Your task to perform on an android device: Open Reddit.com Image 0: 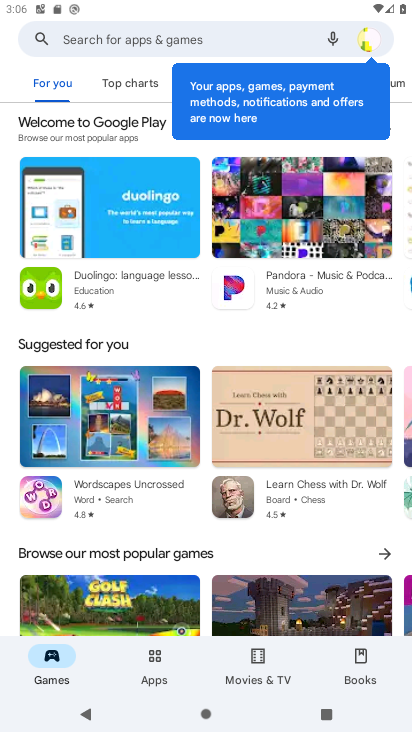
Step 0: press home button
Your task to perform on an android device: Open Reddit.com Image 1: 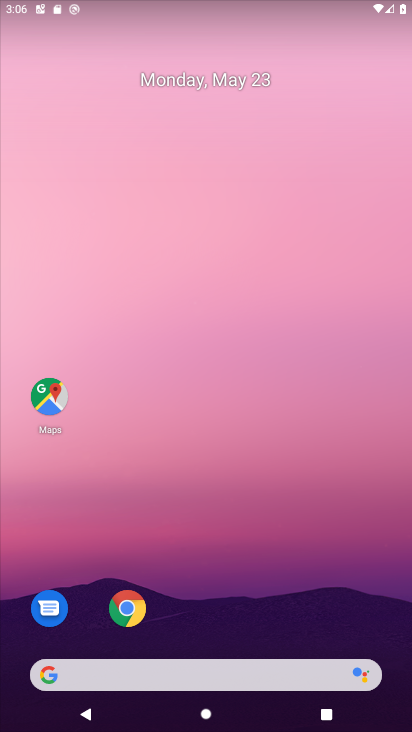
Step 1: click (123, 617)
Your task to perform on an android device: Open Reddit.com Image 2: 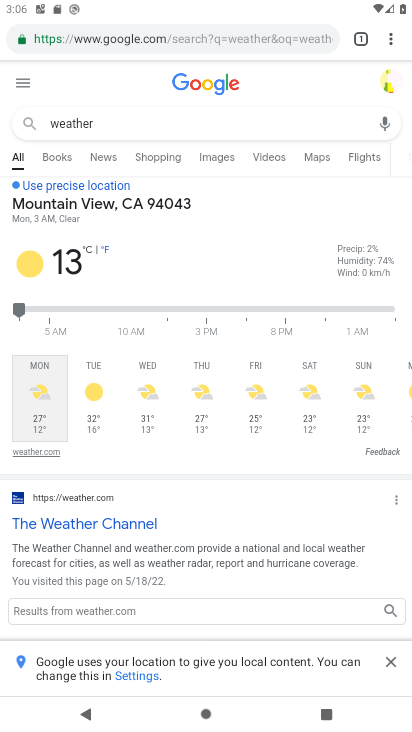
Step 2: click (180, 31)
Your task to perform on an android device: Open Reddit.com Image 3: 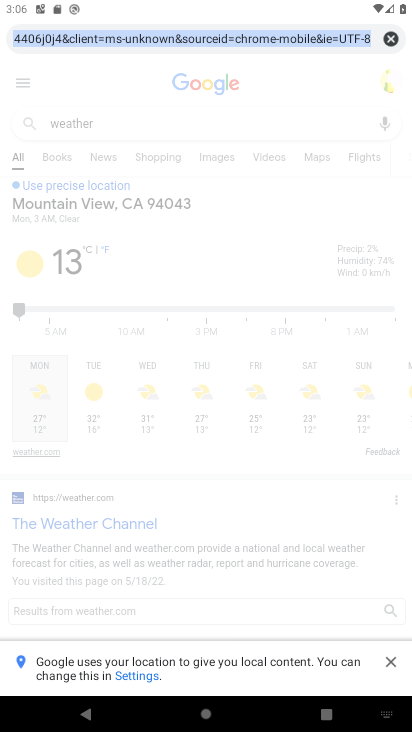
Step 3: type "Reddit.com"
Your task to perform on an android device: Open Reddit.com Image 4: 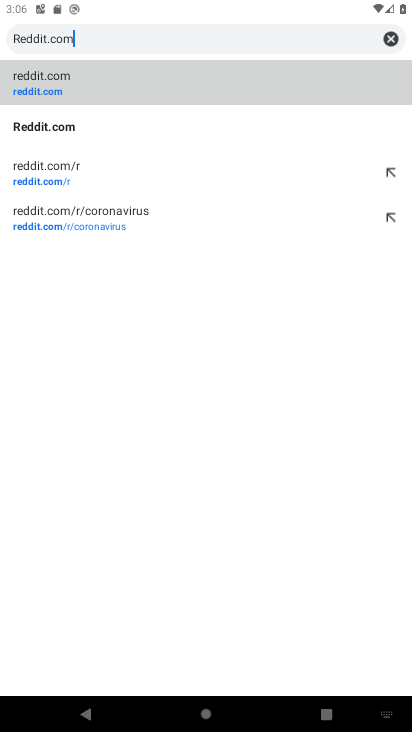
Step 4: click (31, 88)
Your task to perform on an android device: Open Reddit.com Image 5: 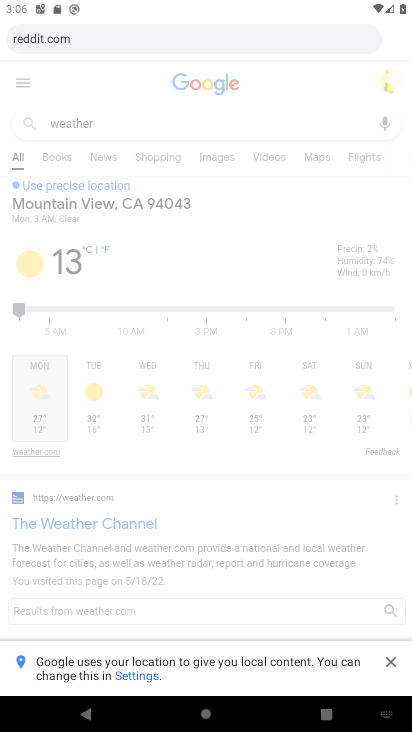
Step 5: click (32, 99)
Your task to perform on an android device: Open Reddit.com Image 6: 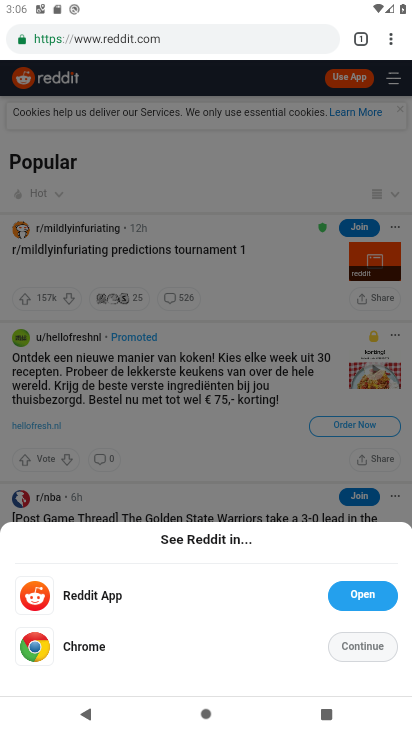
Step 6: click (359, 653)
Your task to perform on an android device: Open Reddit.com Image 7: 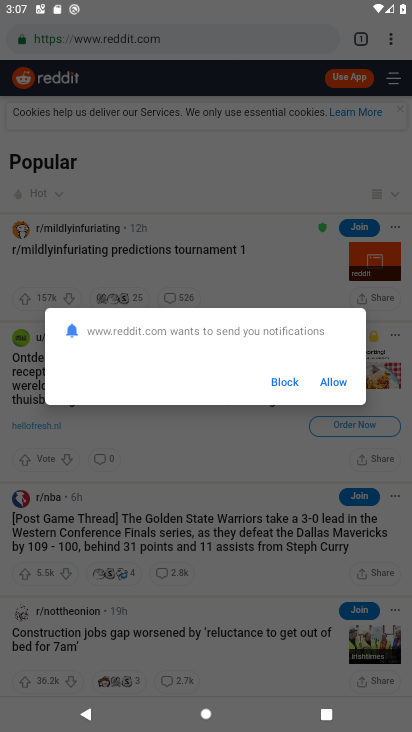
Step 7: click (276, 379)
Your task to perform on an android device: Open Reddit.com Image 8: 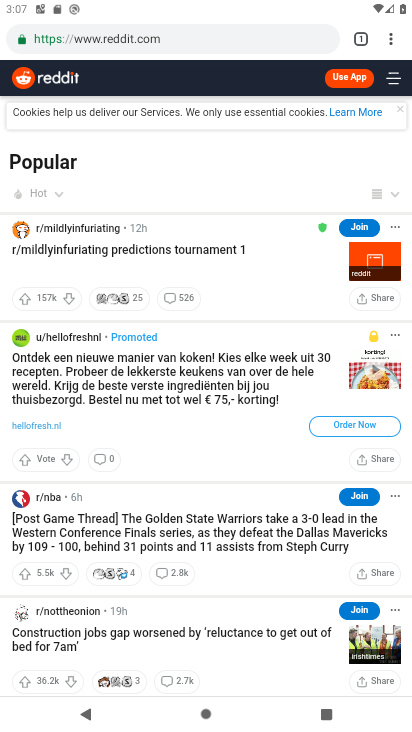
Step 8: task complete